Your task to perform on an android device: Search for Mexican restaurants on Maps Image 0: 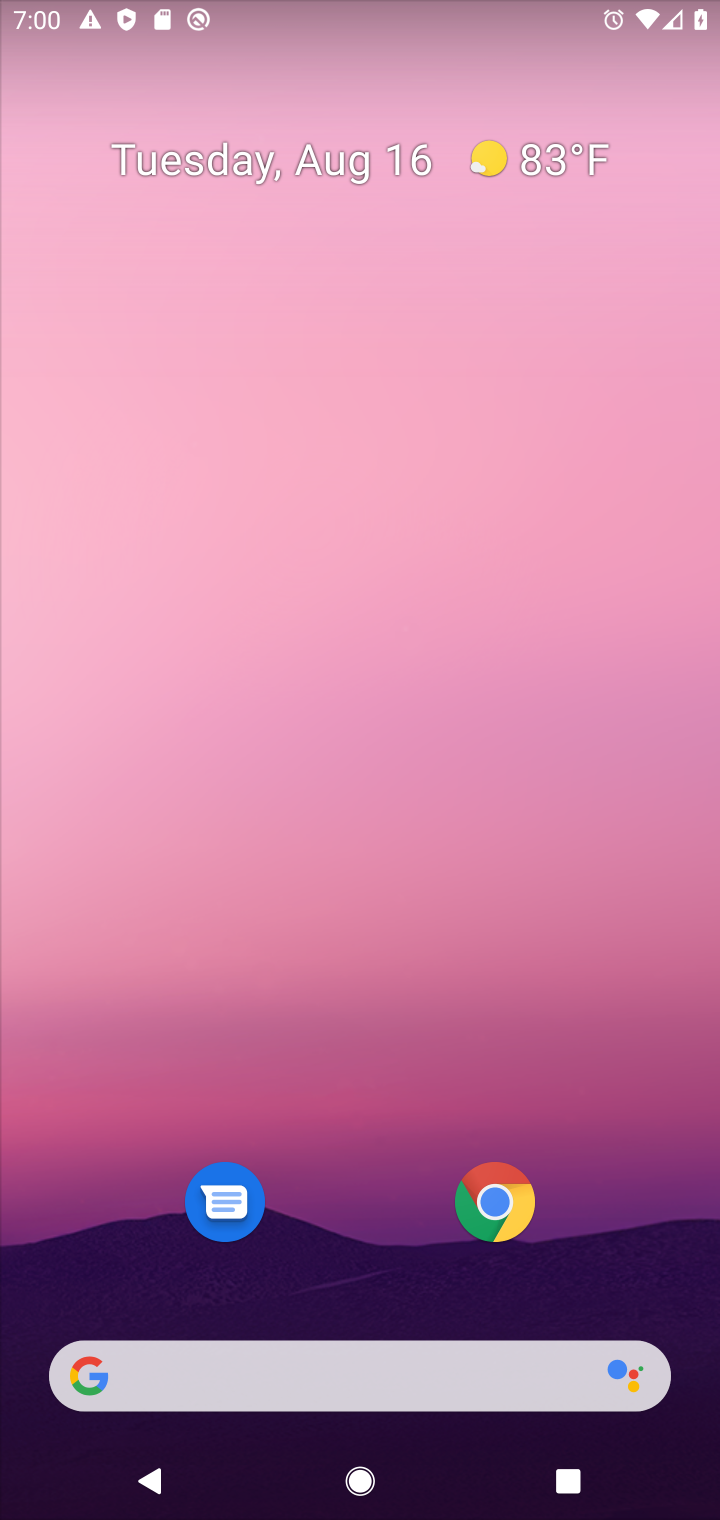
Step 0: drag from (681, 1245) to (224, 10)
Your task to perform on an android device: Search for Mexican restaurants on Maps Image 1: 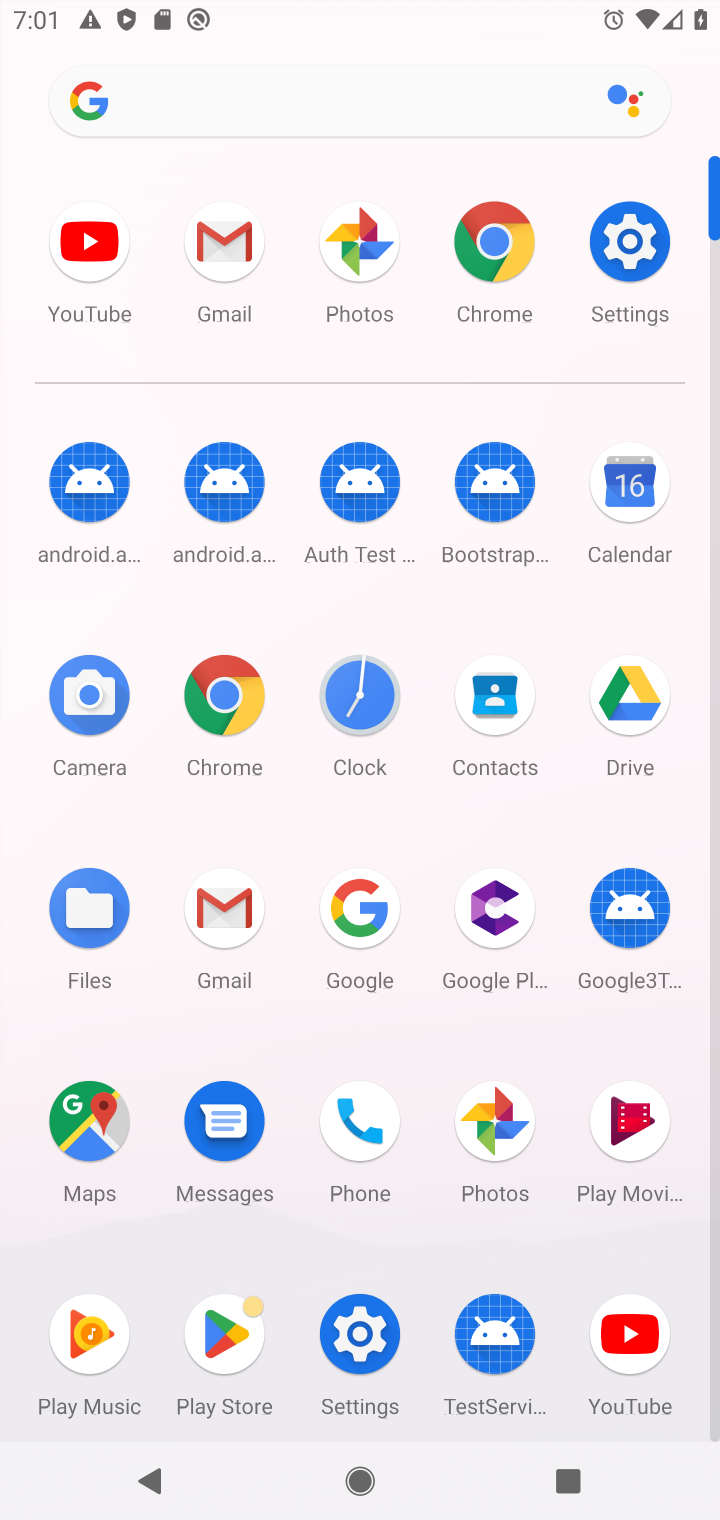
Step 1: click (83, 1135)
Your task to perform on an android device: Search for Mexican restaurants on Maps Image 2: 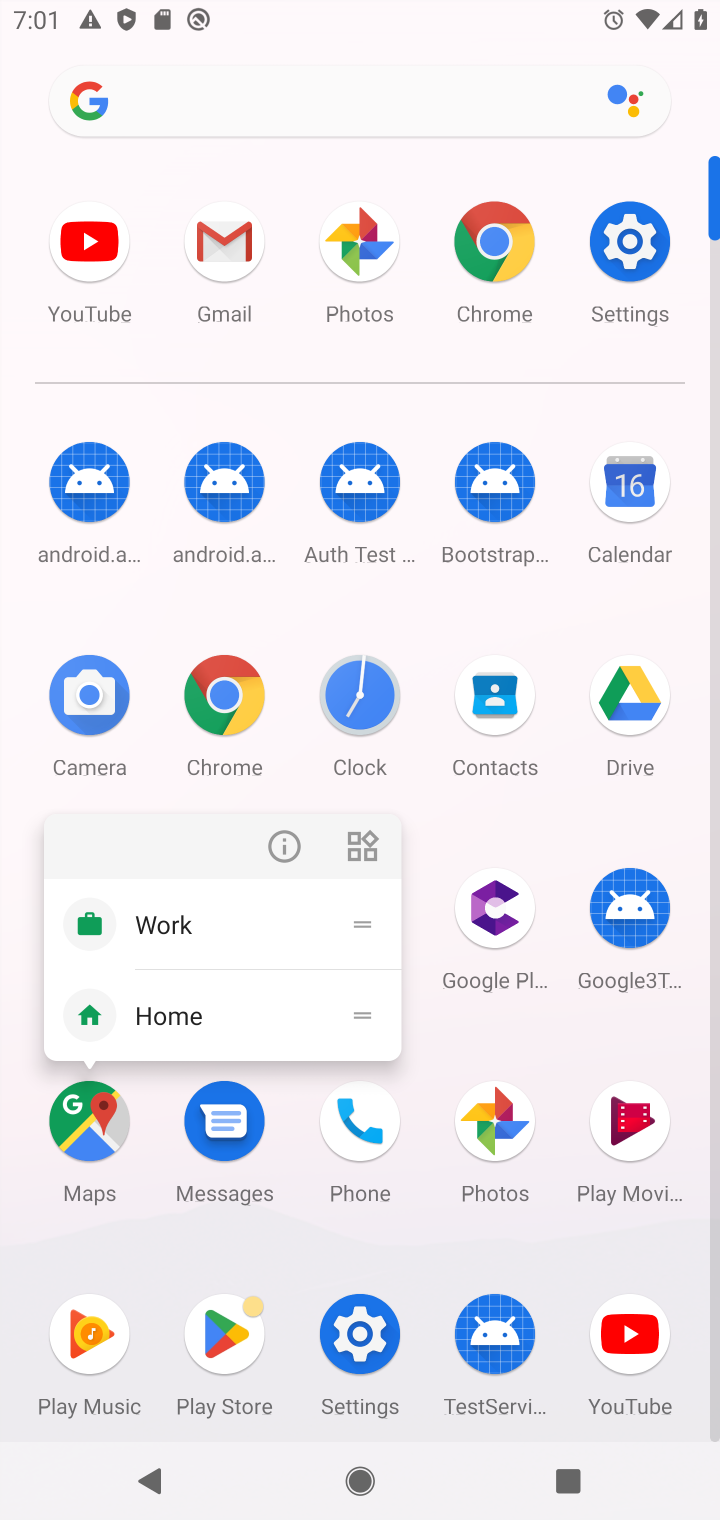
Step 2: click (83, 1135)
Your task to perform on an android device: Search for Mexican restaurants on Maps Image 3: 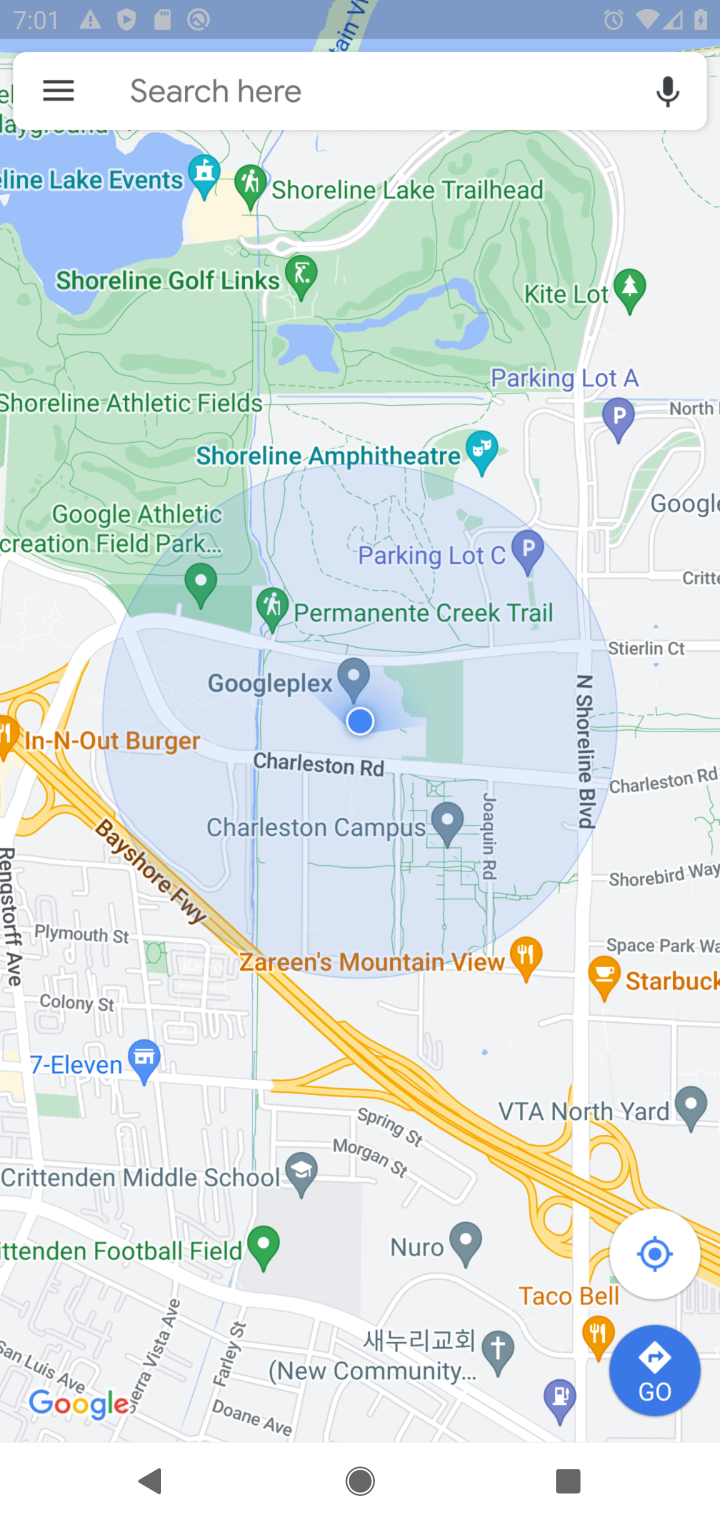
Step 3: click (285, 87)
Your task to perform on an android device: Search for Mexican restaurants on Maps Image 4: 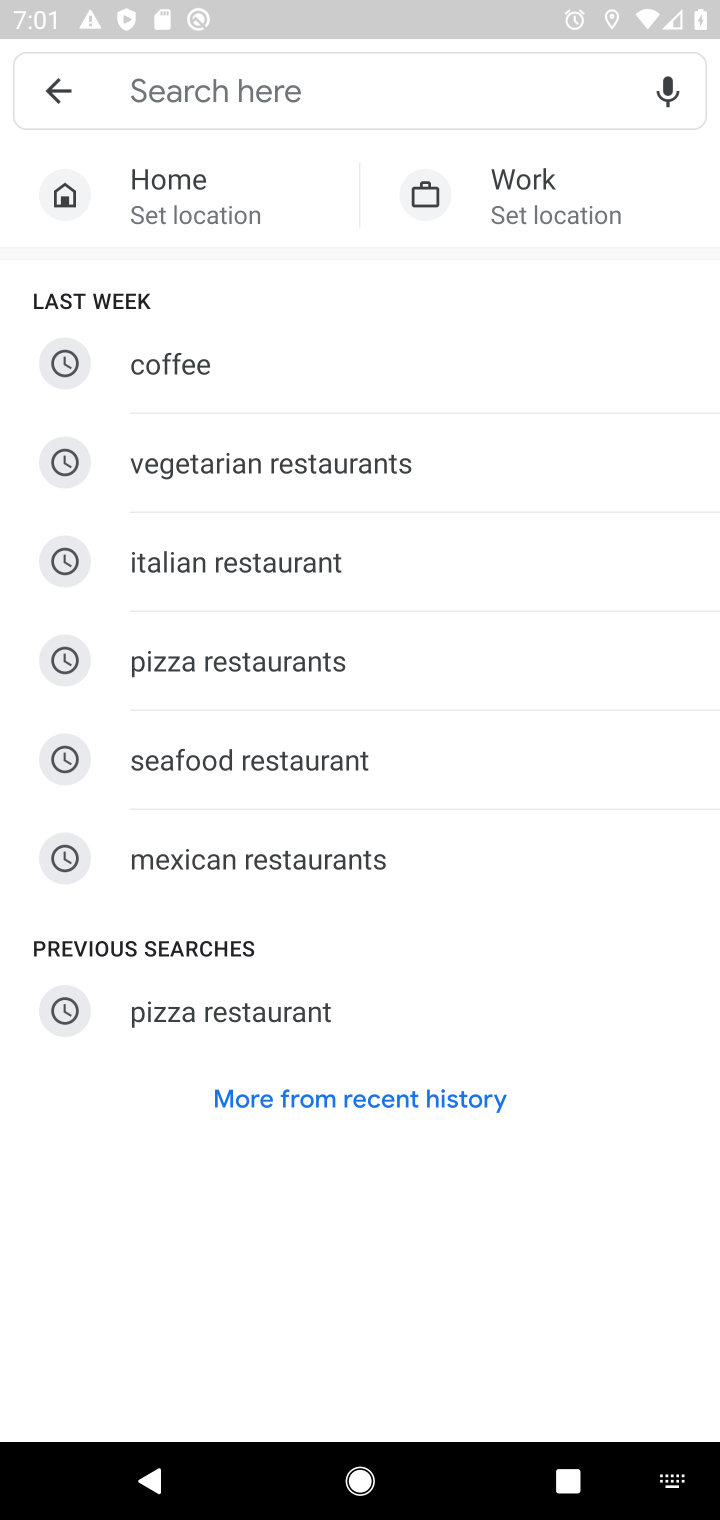
Step 4: click (202, 877)
Your task to perform on an android device: Search for Mexican restaurants on Maps Image 5: 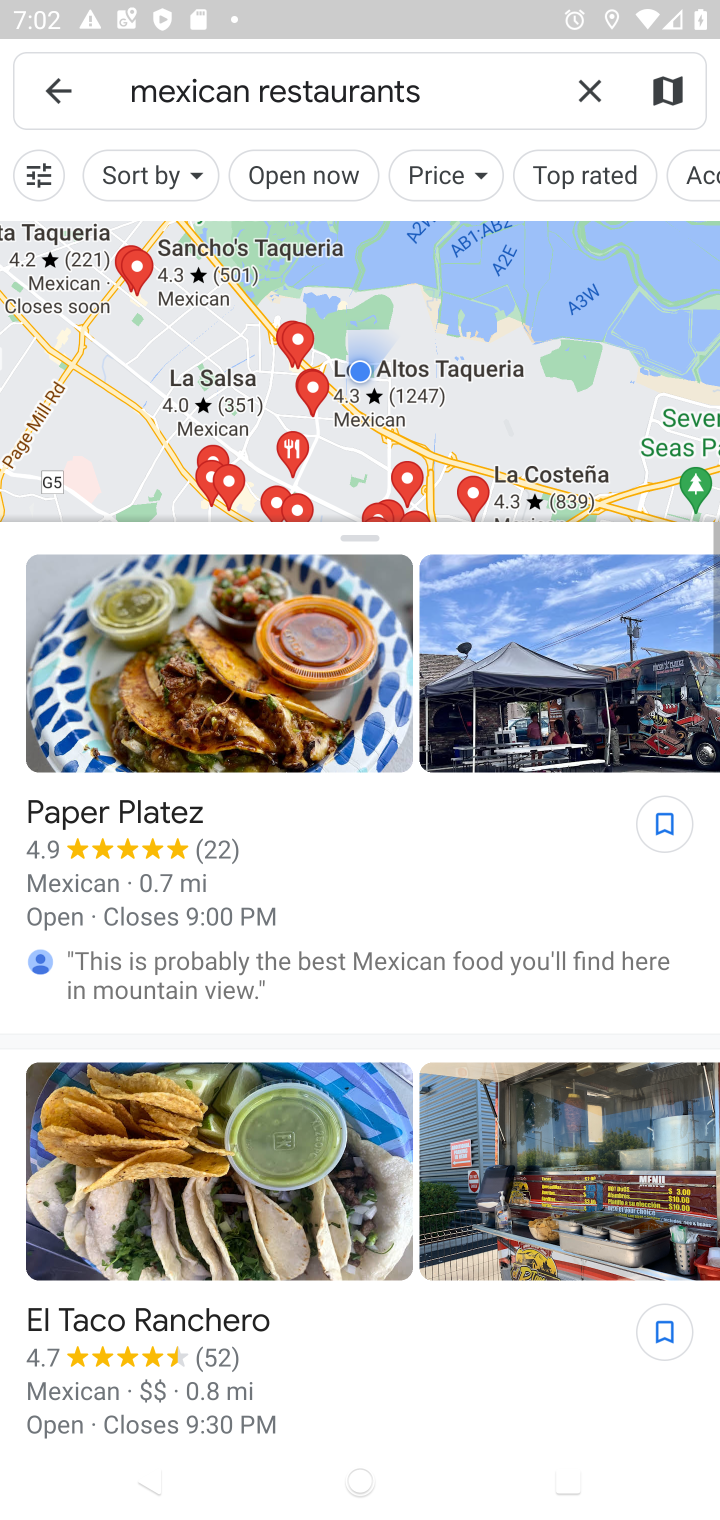
Step 5: task complete